Your task to perform on an android device: Open calendar and show me the fourth week of next month Image 0: 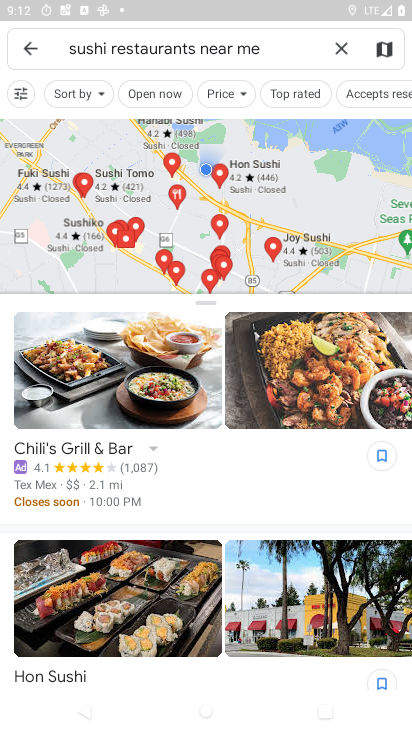
Step 0: press home button
Your task to perform on an android device: Open calendar and show me the fourth week of next month Image 1: 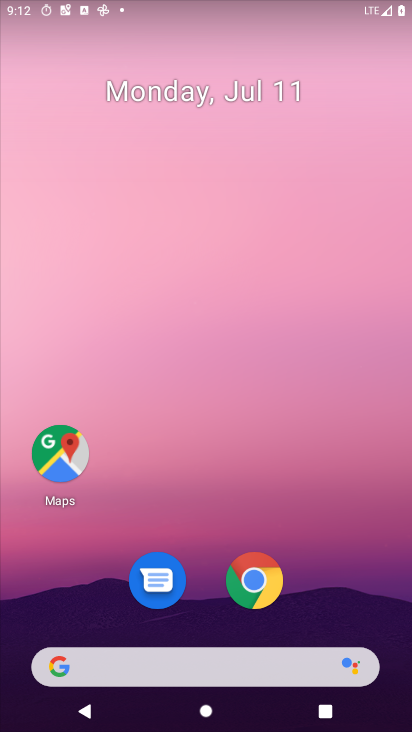
Step 1: drag from (205, 498) to (264, 0)
Your task to perform on an android device: Open calendar and show me the fourth week of next month Image 2: 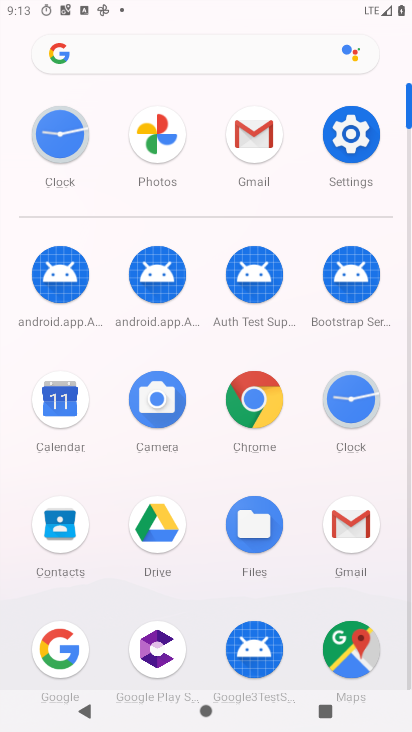
Step 2: click (68, 399)
Your task to perform on an android device: Open calendar and show me the fourth week of next month Image 3: 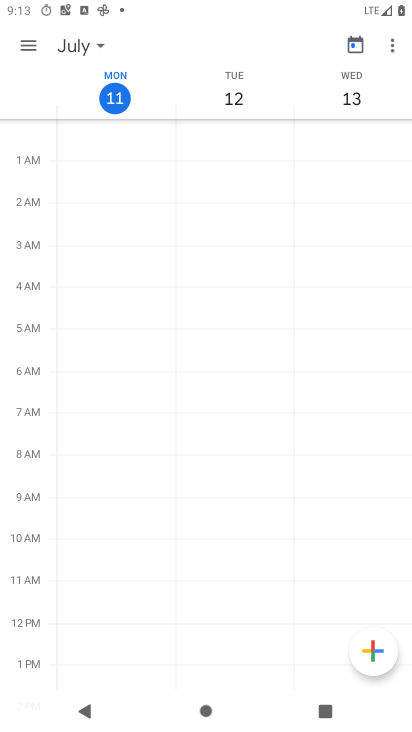
Step 3: click (24, 38)
Your task to perform on an android device: Open calendar and show me the fourth week of next month Image 4: 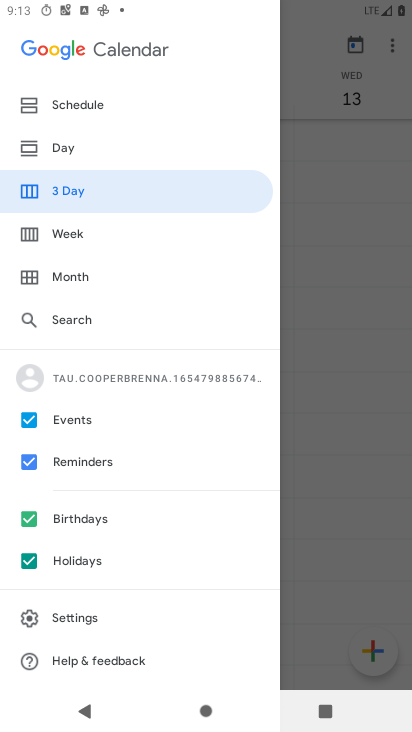
Step 4: click (66, 275)
Your task to perform on an android device: Open calendar and show me the fourth week of next month Image 5: 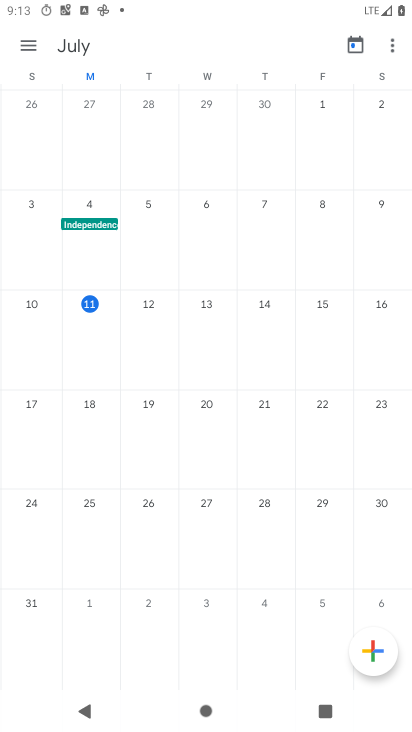
Step 5: drag from (378, 469) to (12, 373)
Your task to perform on an android device: Open calendar and show me the fourth week of next month Image 6: 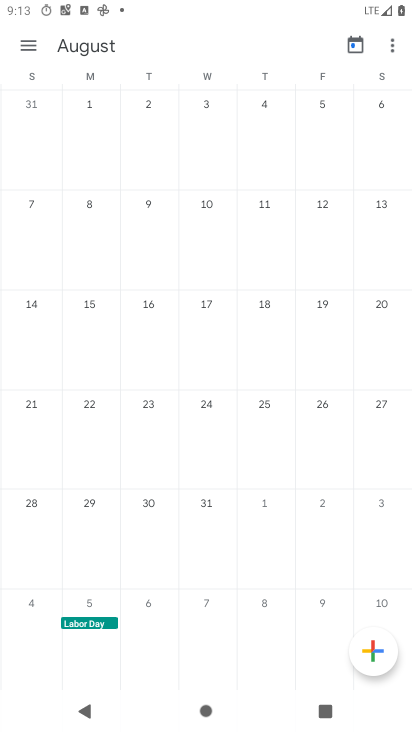
Step 6: click (28, 503)
Your task to perform on an android device: Open calendar and show me the fourth week of next month Image 7: 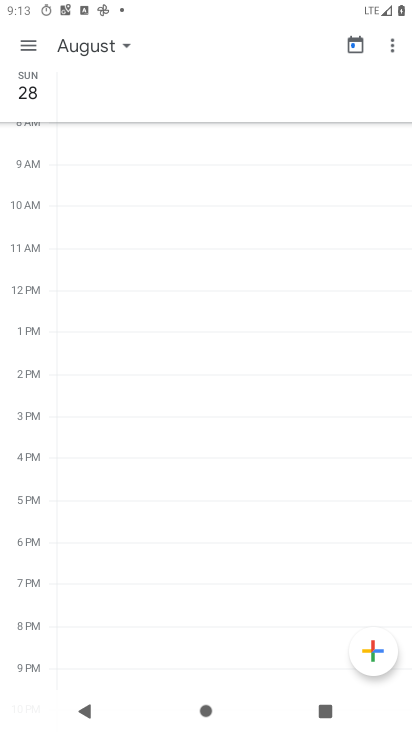
Step 7: click (30, 35)
Your task to perform on an android device: Open calendar and show me the fourth week of next month Image 8: 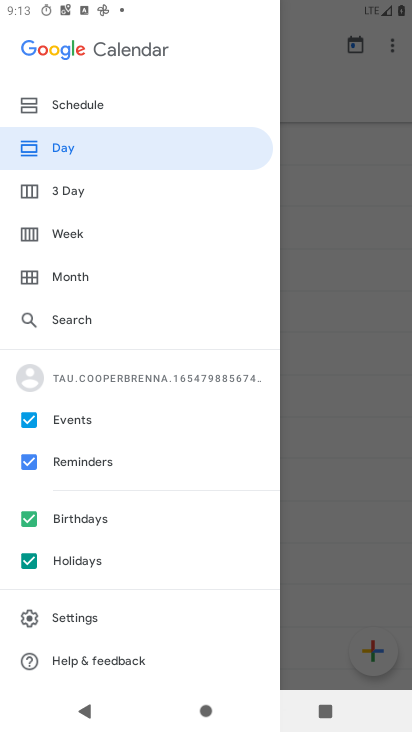
Step 8: click (32, 238)
Your task to perform on an android device: Open calendar and show me the fourth week of next month Image 9: 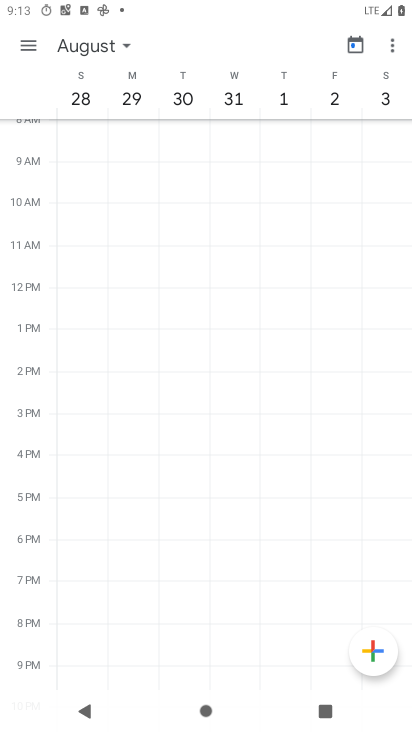
Step 9: task complete